Your task to perform on an android device: clear all cookies in the chrome app Image 0: 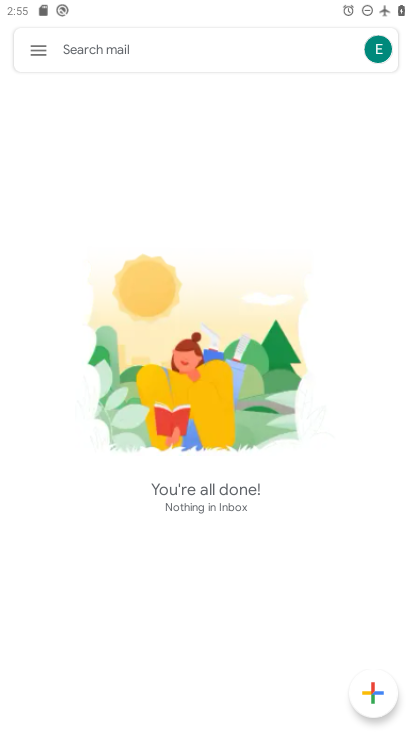
Step 0: press home button
Your task to perform on an android device: clear all cookies in the chrome app Image 1: 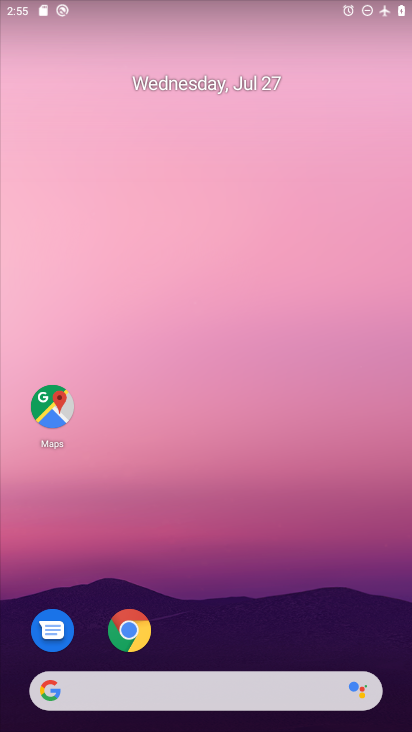
Step 1: click (130, 628)
Your task to perform on an android device: clear all cookies in the chrome app Image 2: 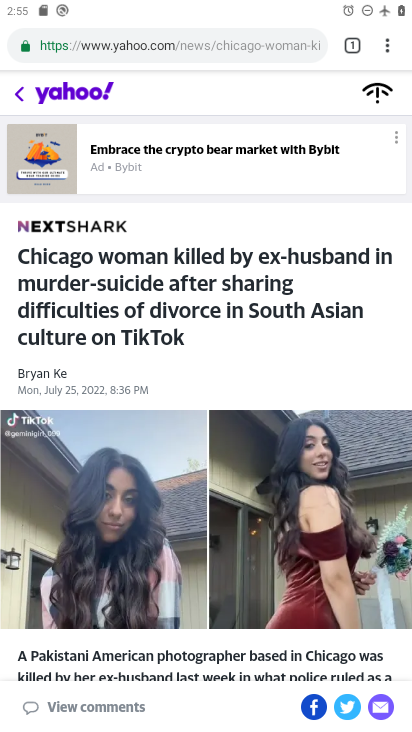
Step 2: click (387, 46)
Your task to perform on an android device: clear all cookies in the chrome app Image 3: 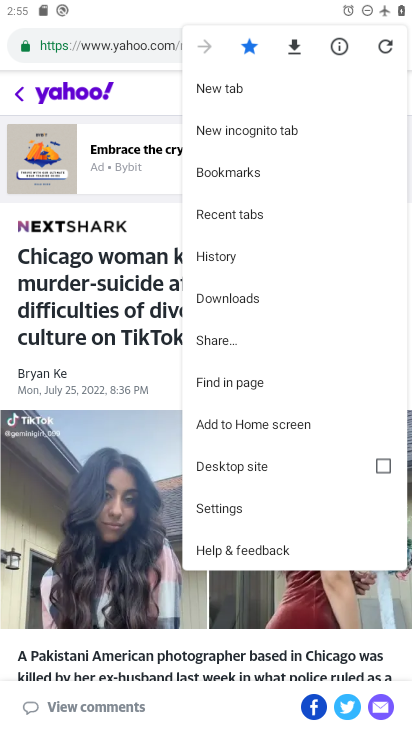
Step 3: click (211, 255)
Your task to perform on an android device: clear all cookies in the chrome app Image 4: 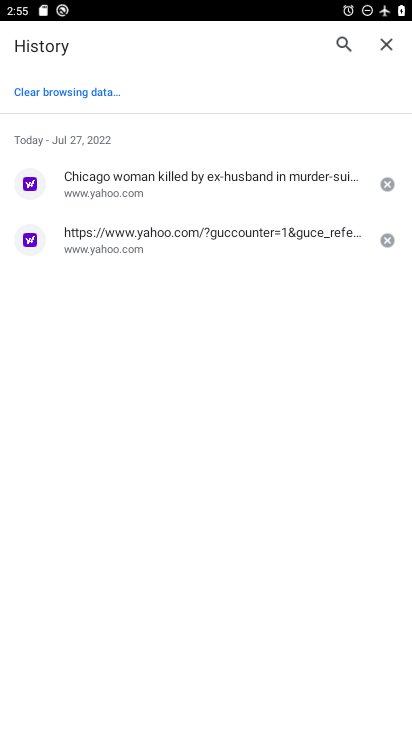
Step 4: click (84, 95)
Your task to perform on an android device: clear all cookies in the chrome app Image 5: 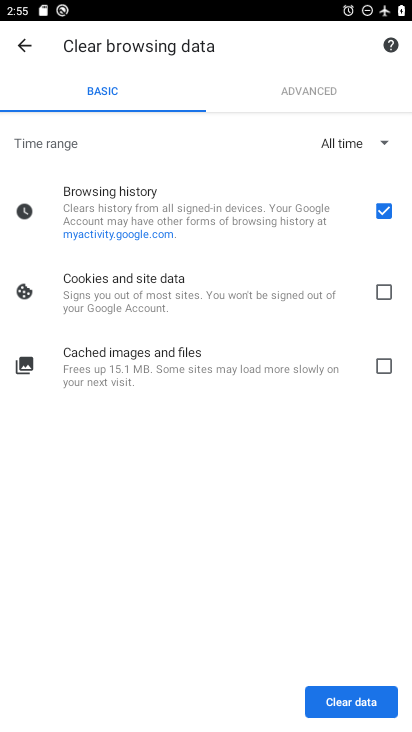
Step 5: click (384, 288)
Your task to perform on an android device: clear all cookies in the chrome app Image 6: 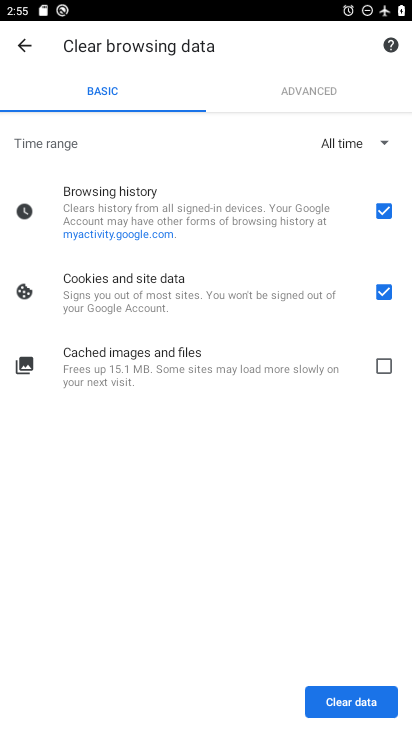
Step 6: click (380, 210)
Your task to perform on an android device: clear all cookies in the chrome app Image 7: 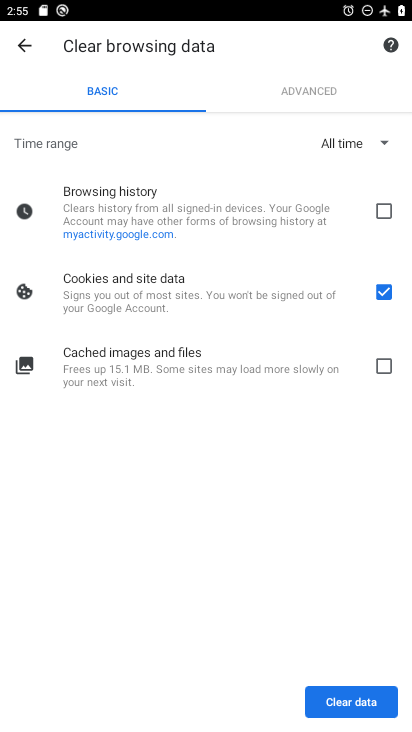
Step 7: click (350, 696)
Your task to perform on an android device: clear all cookies in the chrome app Image 8: 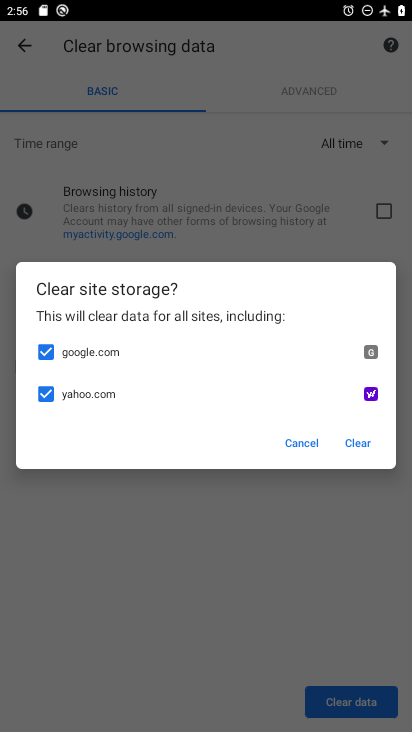
Step 8: click (356, 443)
Your task to perform on an android device: clear all cookies in the chrome app Image 9: 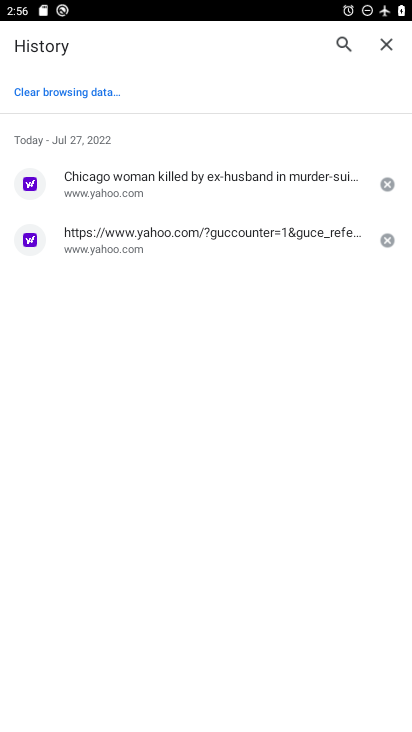
Step 9: task complete